Your task to perform on an android device: turn on location history Image 0: 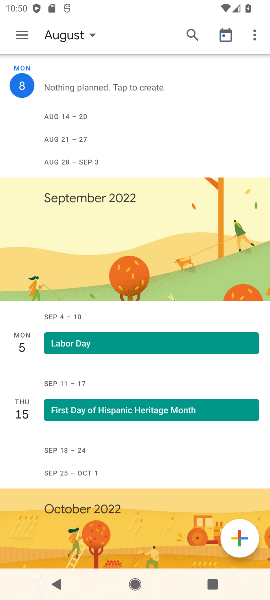
Step 0: press back button
Your task to perform on an android device: turn on location history Image 1: 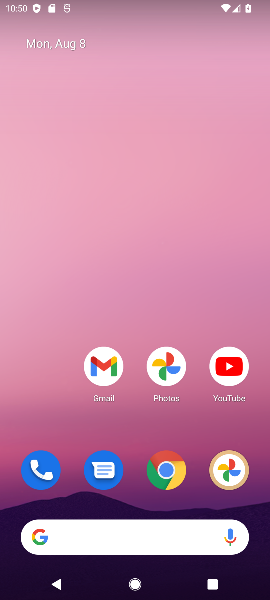
Step 1: drag from (159, 321) to (185, 177)
Your task to perform on an android device: turn on location history Image 2: 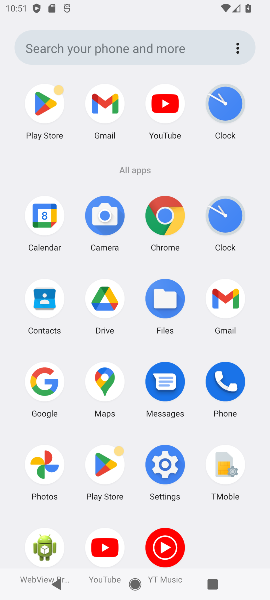
Step 2: click (163, 464)
Your task to perform on an android device: turn on location history Image 3: 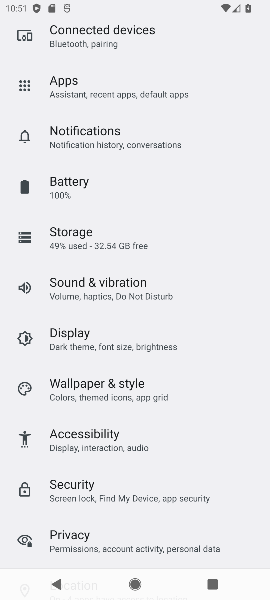
Step 3: drag from (111, 469) to (181, 172)
Your task to perform on an android device: turn on location history Image 4: 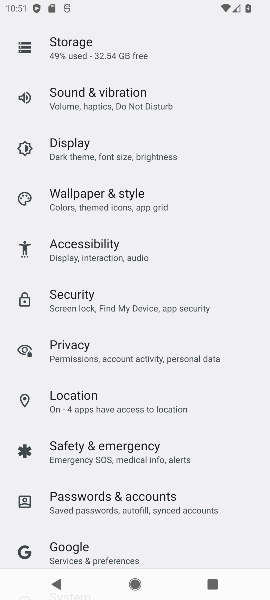
Step 4: drag from (88, 470) to (130, 215)
Your task to perform on an android device: turn on location history Image 5: 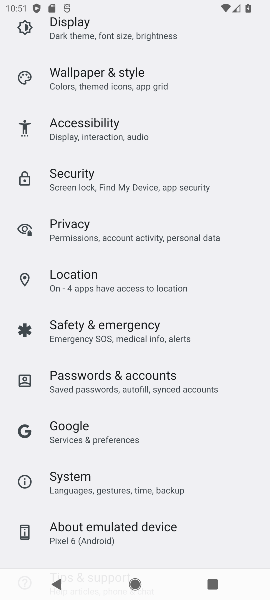
Step 5: drag from (136, 390) to (145, 179)
Your task to perform on an android device: turn on location history Image 6: 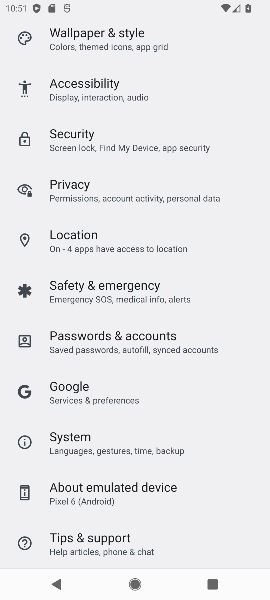
Step 6: click (59, 243)
Your task to perform on an android device: turn on location history Image 7: 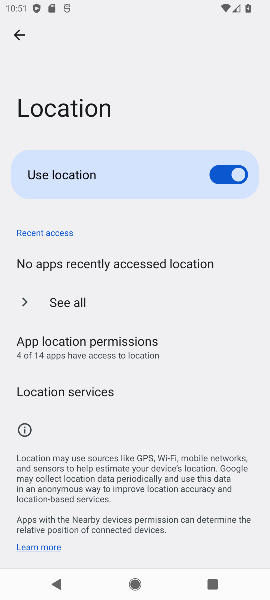
Step 7: click (83, 400)
Your task to perform on an android device: turn on location history Image 8: 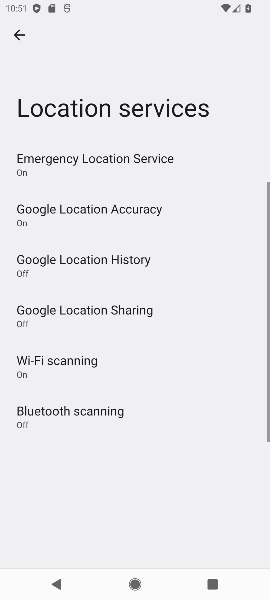
Step 8: click (91, 256)
Your task to perform on an android device: turn on location history Image 9: 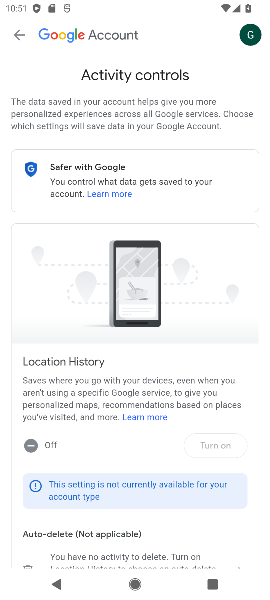
Step 9: task complete